Your task to perform on an android device: Go to ESPN.com Image 0: 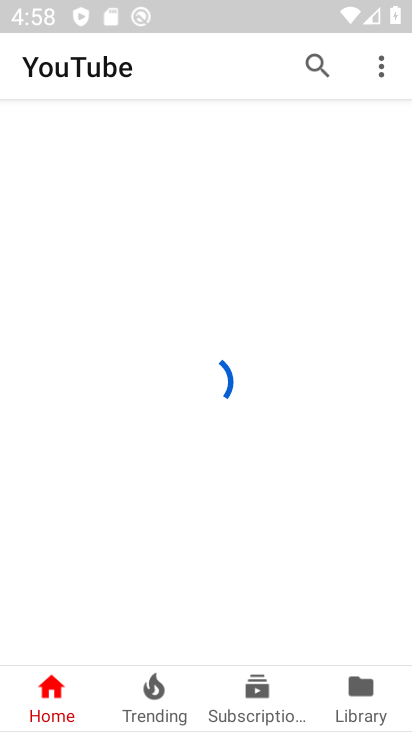
Step 0: drag from (319, 551) to (246, 66)
Your task to perform on an android device: Go to ESPN.com Image 1: 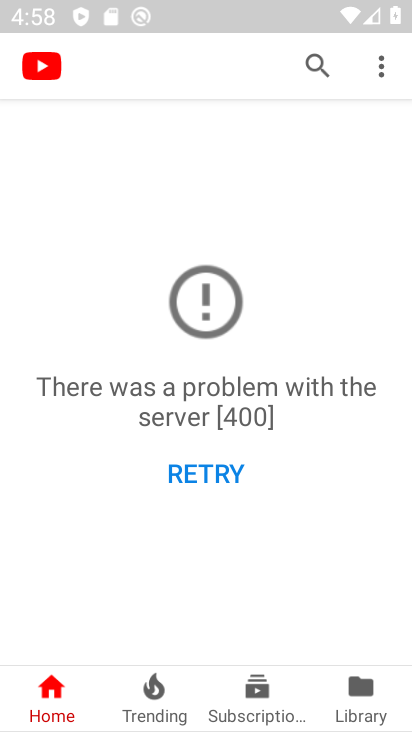
Step 1: press back button
Your task to perform on an android device: Go to ESPN.com Image 2: 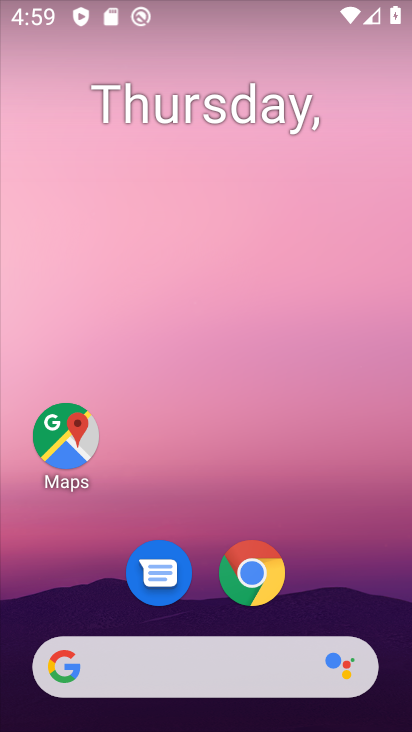
Step 2: drag from (315, 592) to (244, 76)
Your task to perform on an android device: Go to ESPN.com Image 3: 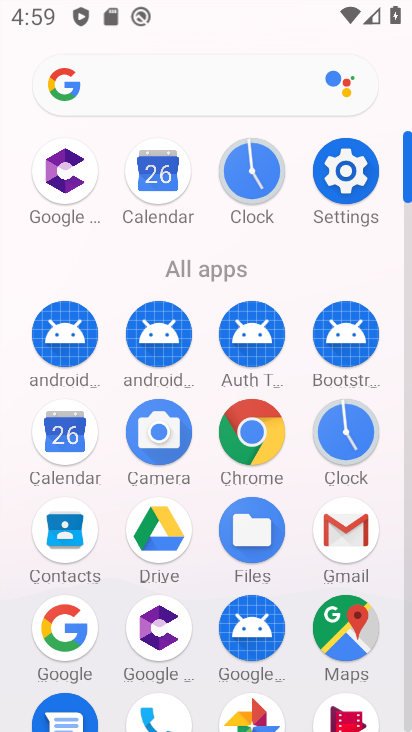
Step 3: click (257, 429)
Your task to perform on an android device: Go to ESPN.com Image 4: 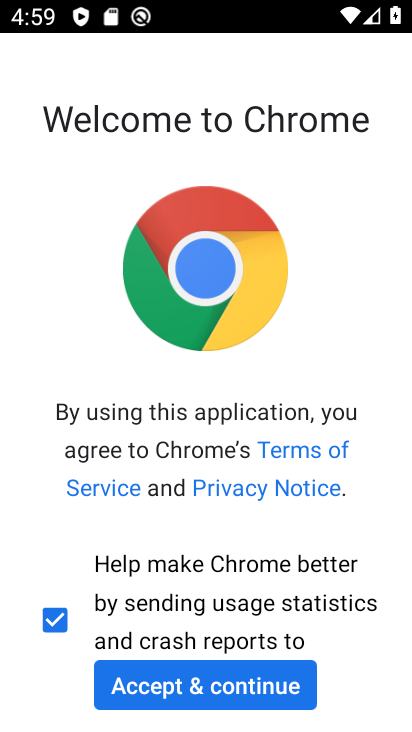
Step 4: click (146, 679)
Your task to perform on an android device: Go to ESPN.com Image 5: 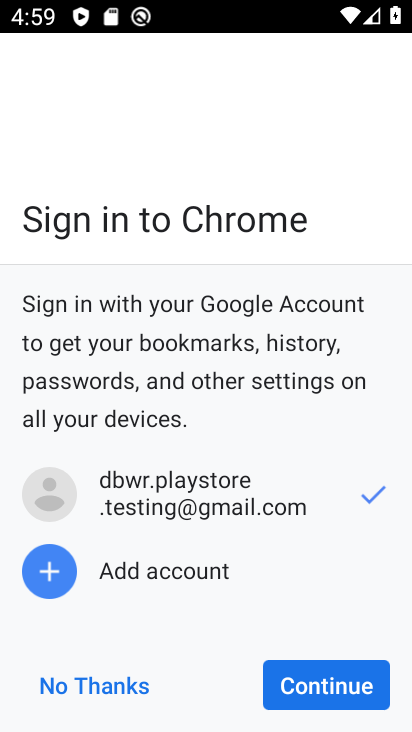
Step 5: click (300, 683)
Your task to perform on an android device: Go to ESPN.com Image 6: 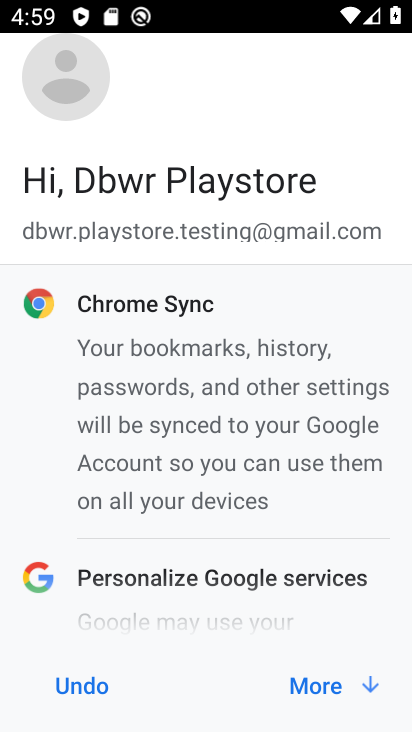
Step 6: click (302, 681)
Your task to perform on an android device: Go to ESPN.com Image 7: 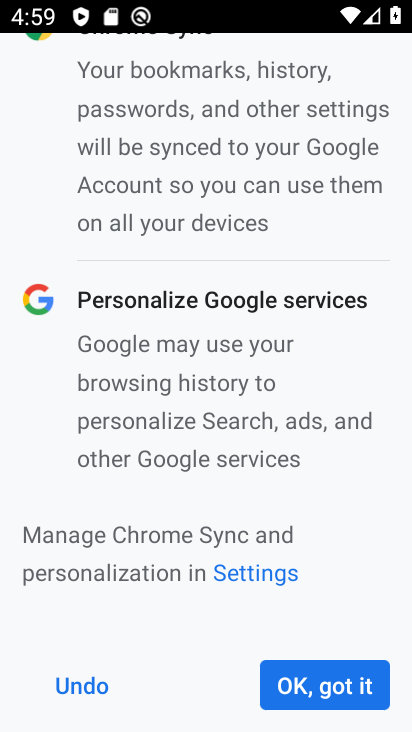
Step 7: click (302, 681)
Your task to perform on an android device: Go to ESPN.com Image 8: 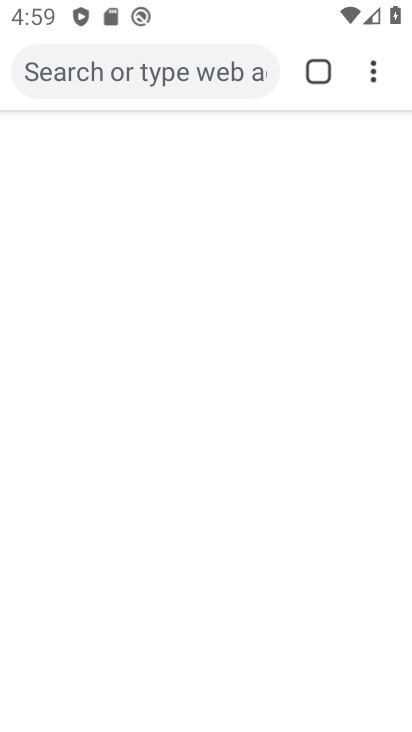
Step 8: click (196, 68)
Your task to perform on an android device: Go to ESPN.com Image 9: 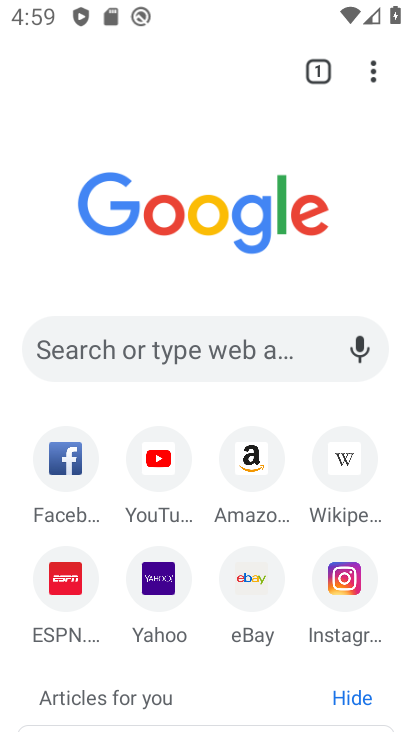
Step 9: click (186, 351)
Your task to perform on an android device: Go to ESPN.com Image 10: 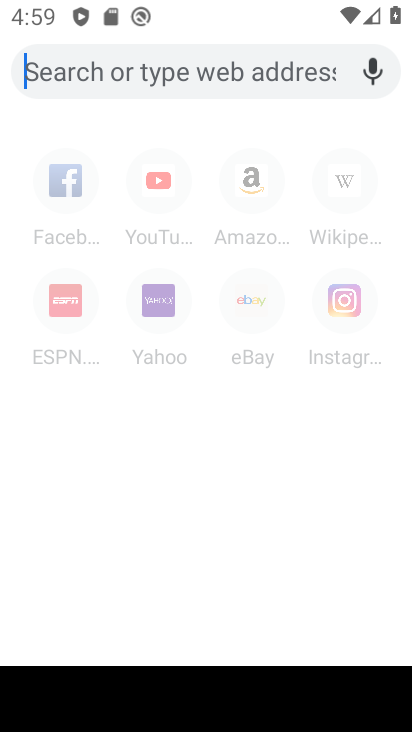
Step 10: click (64, 303)
Your task to perform on an android device: Go to ESPN.com Image 11: 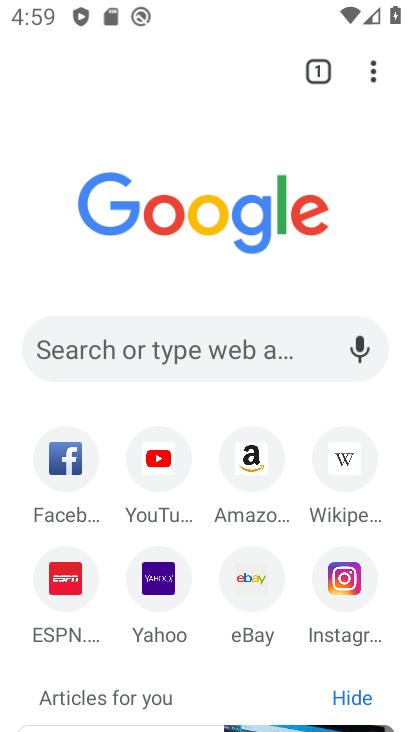
Step 11: click (56, 587)
Your task to perform on an android device: Go to ESPN.com Image 12: 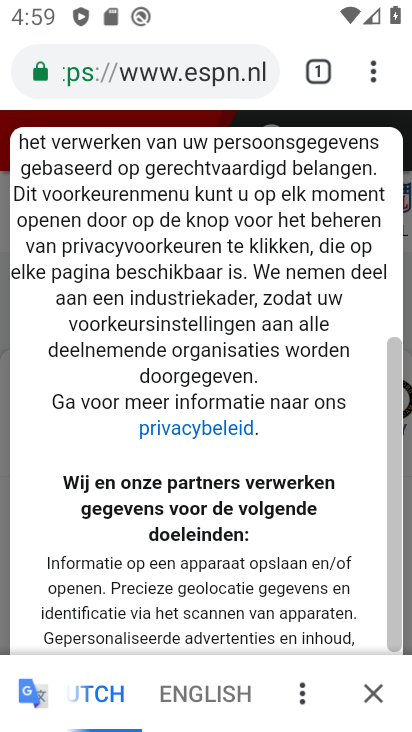
Step 12: task complete